Your task to perform on an android device: turn off airplane mode Image 0: 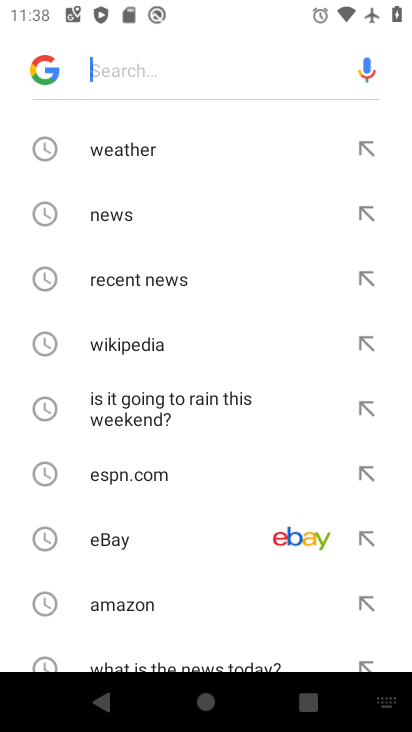
Step 0: press home button
Your task to perform on an android device: turn off airplane mode Image 1: 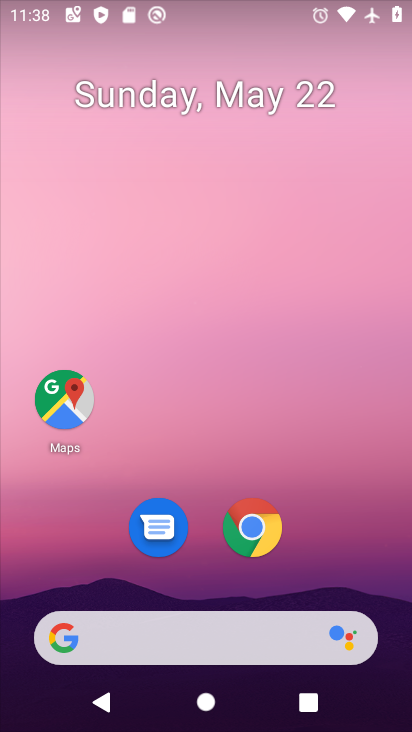
Step 1: drag from (347, 548) to (38, 4)
Your task to perform on an android device: turn off airplane mode Image 2: 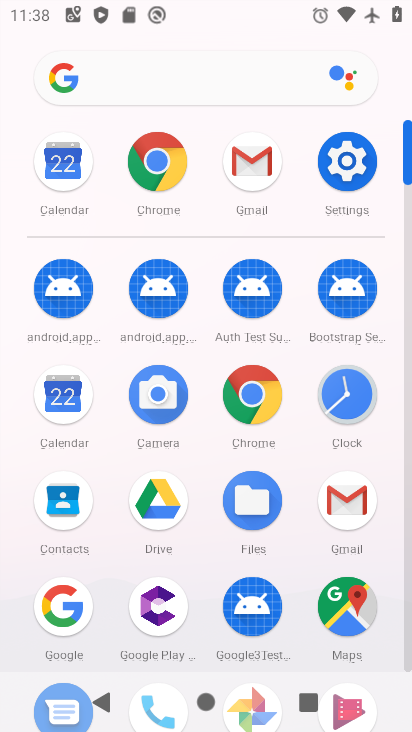
Step 2: click (318, 168)
Your task to perform on an android device: turn off airplane mode Image 3: 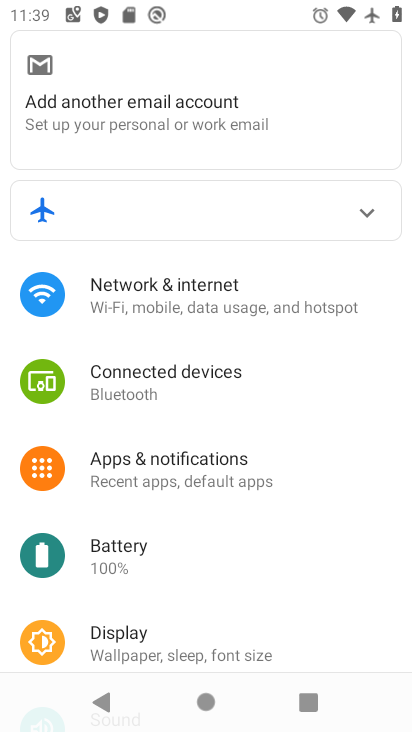
Step 3: click (177, 317)
Your task to perform on an android device: turn off airplane mode Image 4: 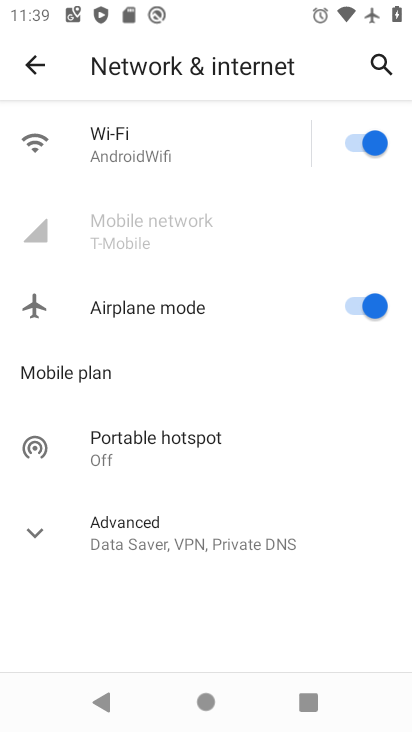
Step 4: click (344, 312)
Your task to perform on an android device: turn off airplane mode Image 5: 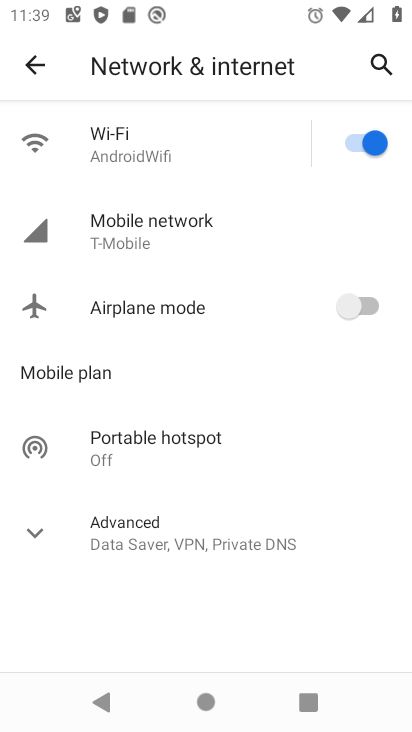
Step 5: task complete